Your task to perform on an android device: Open Google Maps and go to "Timeline" Image 0: 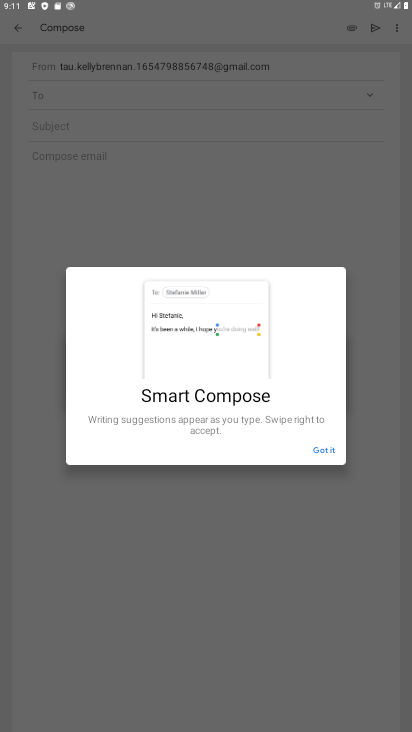
Step 0: press home button
Your task to perform on an android device: Open Google Maps and go to "Timeline" Image 1: 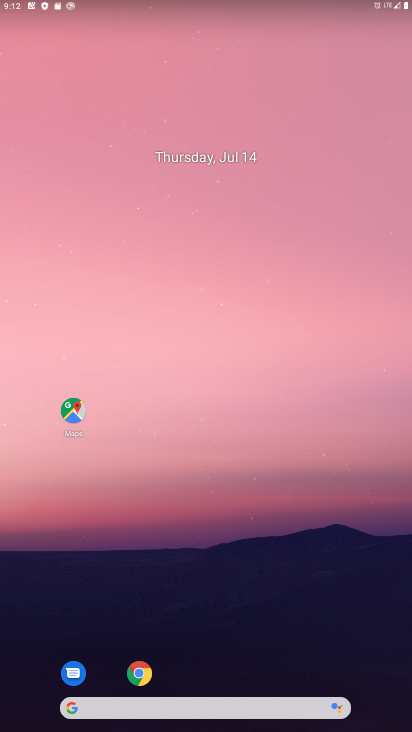
Step 1: click (71, 410)
Your task to perform on an android device: Open Google Maps and go to "Timeline" Image 2: 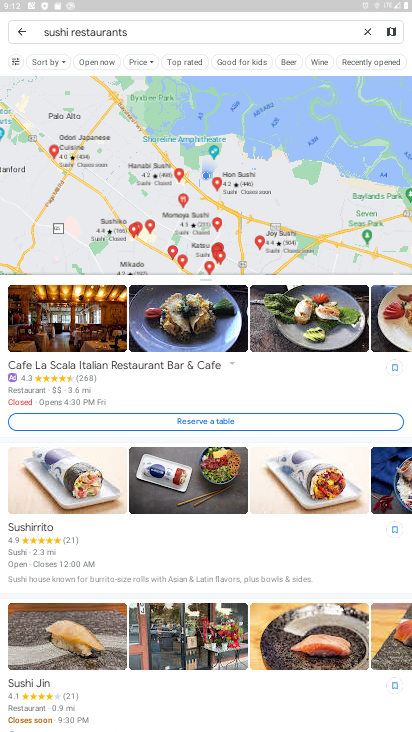
Step 2: press back button
Your task to perform on an android device: Open Google Maps and go to "Timeline" Image 3: 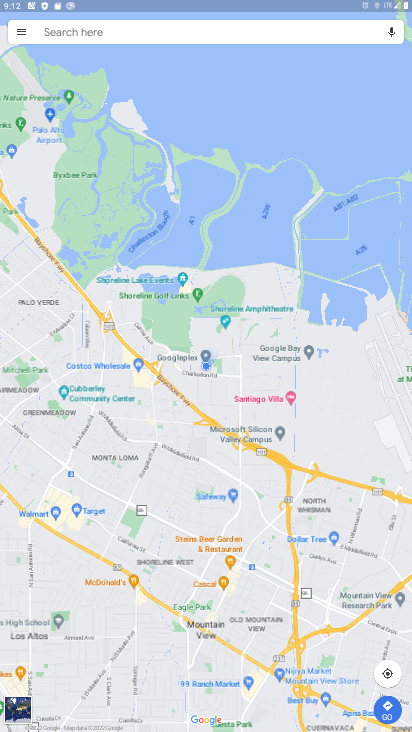
Step 3: click (22, 31)
Your task to perform on an android device: Open Google Maps and go to "Timeline" Image 4: 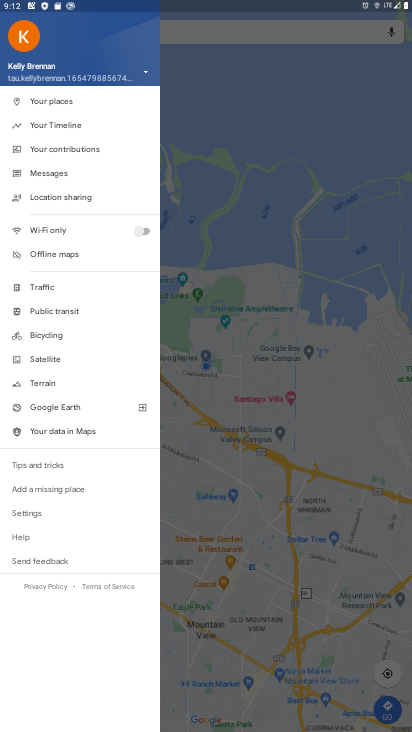
Step 4: click (58, 121)
Your task to perform on an android device: Open Google Maps and go to "Timeline" Image 5: 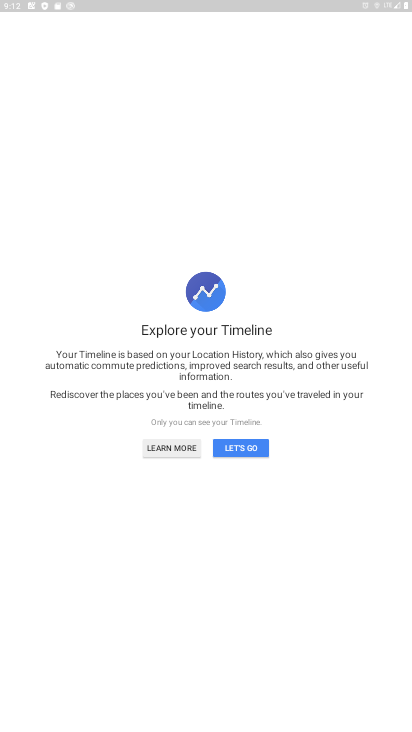
Step 5: click (244, 445)
Your task to perform on an android device: Open Google Maps and go to "Timeline" Image 6: 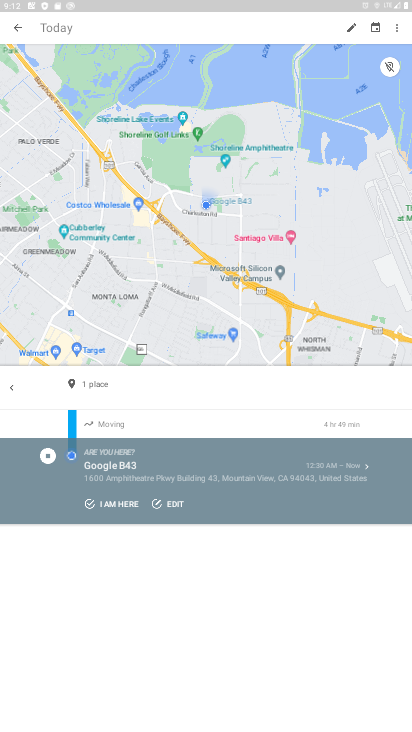
Step 6: task complete